Your task to perform on an android device: toggle airplane mode Image 0: 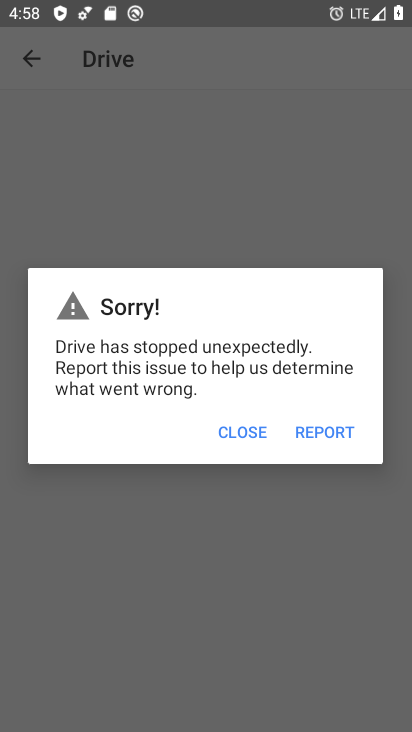
Step 0: press home button
Your task to perform on an android device: toggle airplane mode Image 1: 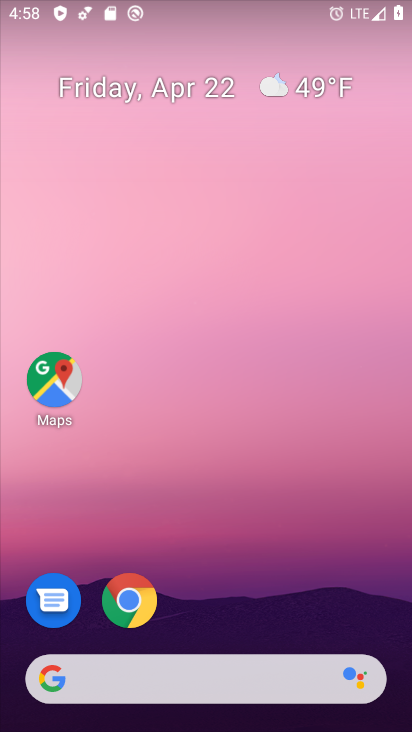
Step 1: drag from (240, 574) to (200, 65)
Your task to perform on an android device: toggle airplane mode Image 2: 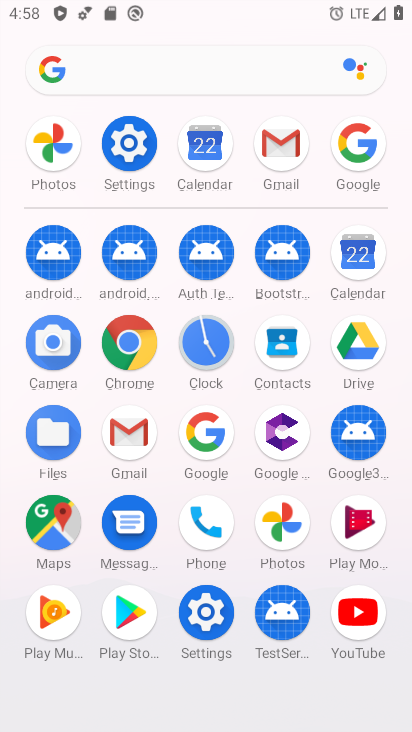
Step 2: click (128, 143)
Your task to perform on an android device: toggle airplane mode Image 3: 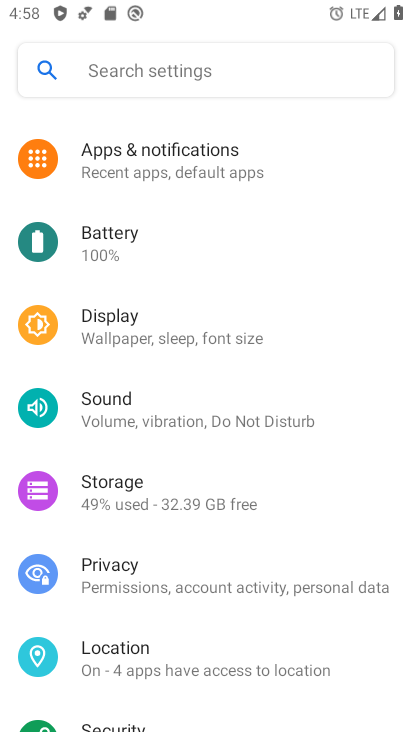
Step 3: drag from (208, 211) to (196, 379)
Your task to perform on an android device: toggle airplane mode Image 4: 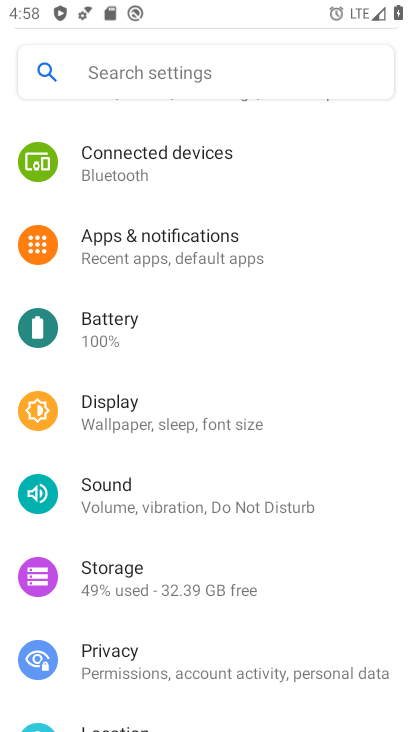
Step 4: drag from (228, 195) to (261, 391)
Your task to perform on an android device: toggle airplane mode Image 5: 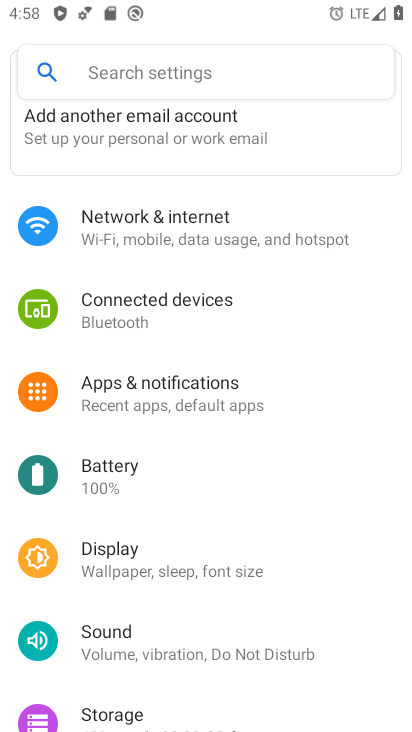
Step 5: click (181, 226)
Your task to perform on an android device: toggle airplane mode Image 6: 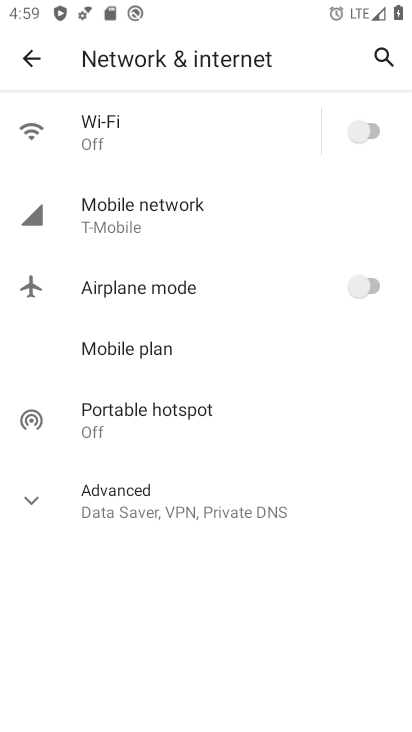
Step 6: click (361, 287)
Your task to perform on an android device: toggle airplane mode Image 7: 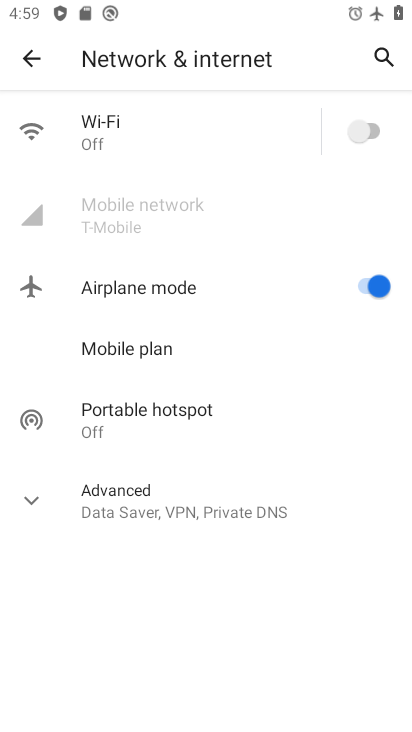
Step 7: task complete